Your task to perform on an android device: Open calendar and show me the third week of next month Image 0: 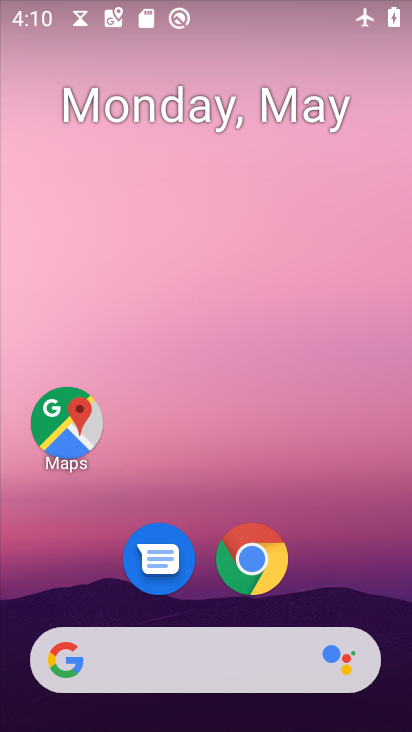
Step 0: drag from (287, 610) to (279, 69)
Your task to perform on an android device: Open calendar and show me the third week of next month Image 1: 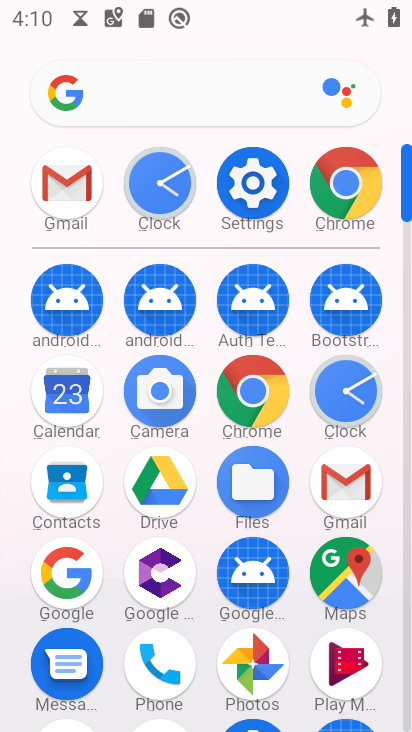
Step 1: click (61, 399)
Your task to perform on an android device: Open calendar and show me the third week of next month Image 2: 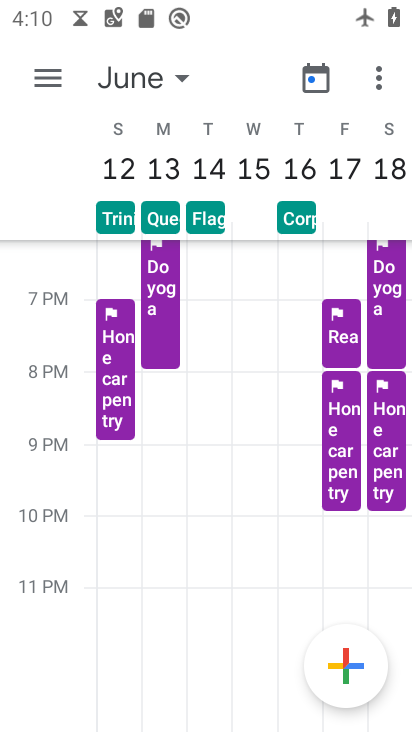
Step 2: click (140, 88)
Your task to perform on an android device: Open calendar and show me the third week of next month Image 3: 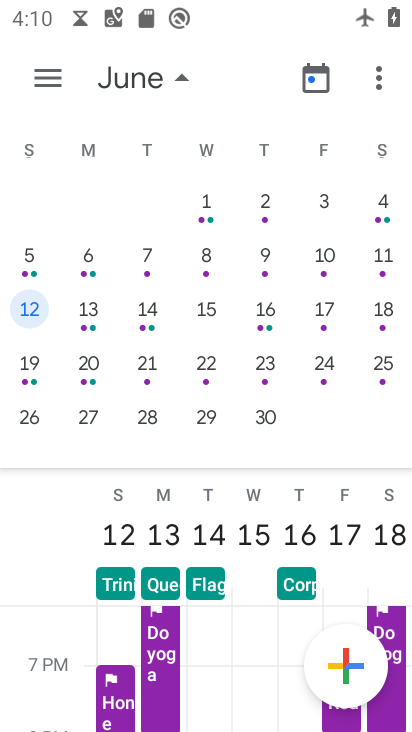
Step 3: click (34, 374)
Your task to perform on an android device: Open calendar and show me the third week of next month Image 4: 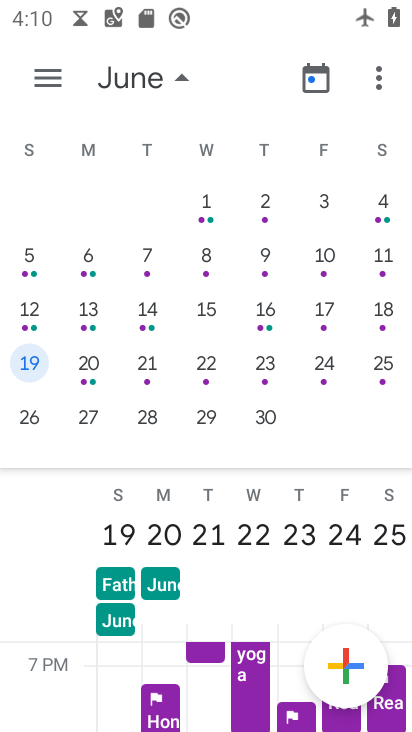
Step 4: task complete